Your task to perform on an android device: Show me popular videos on Youtube Image 0: 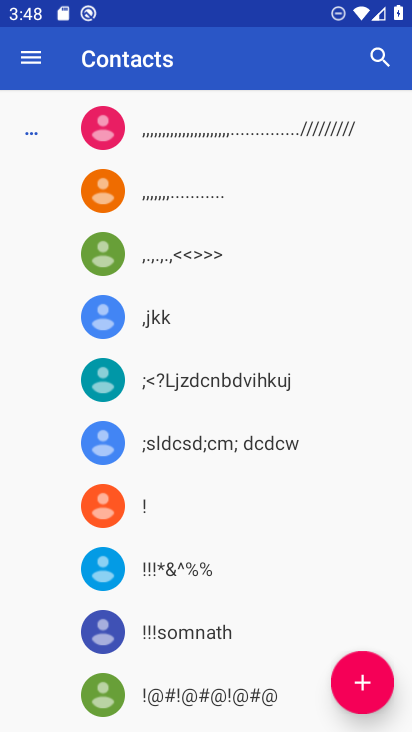
Step 0: press home button
Your task to perform on an android device: Show me popular videos on Youtube Image 1: 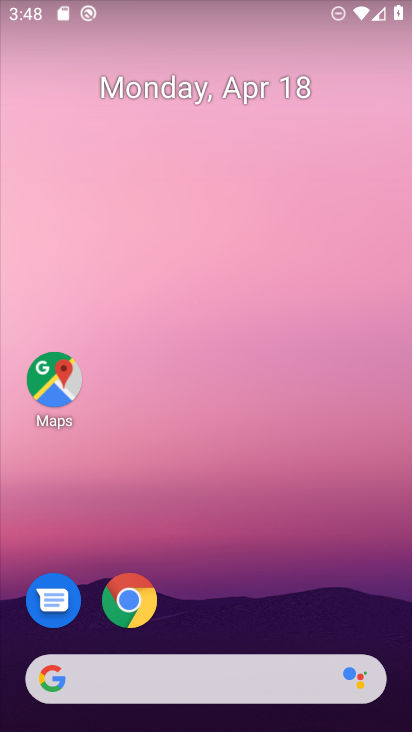
Step 1: drag from (281, 706) to (267, 248)
Your task to perform on an android device: Show me popular videos on Youtube Image 2: 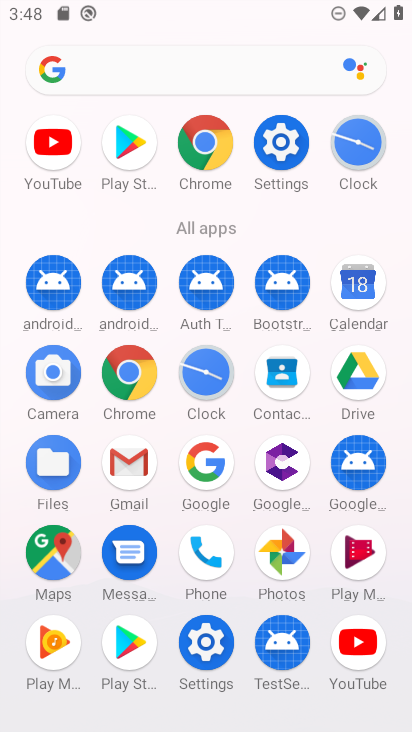
Step 2: click (50, 167)
Your task to perform on an android device: Show me popular videos on Youtube Image 3: 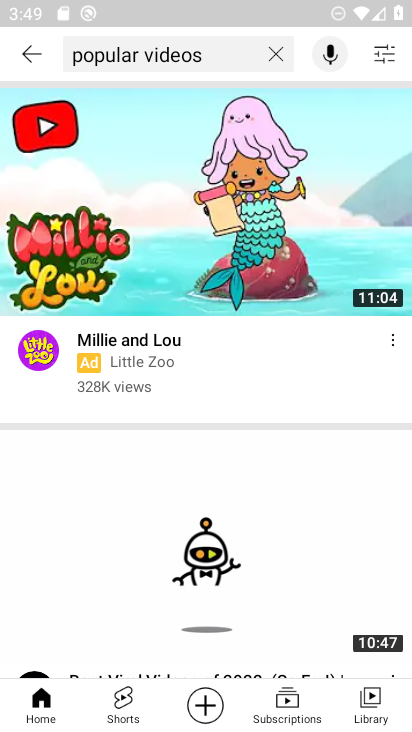
Step 3: task complete